Your task to perform on an android device: open app "Instagram" (install if not already installed) Image 0: 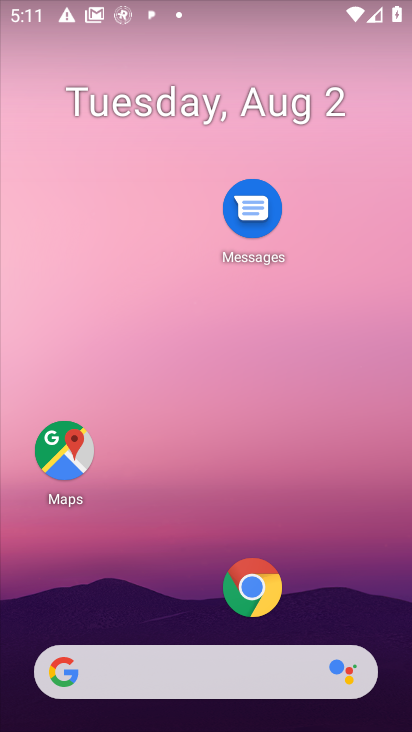
Step 0: drag from (165, 544) to (159, 205)
Your task to perform on an android device: open app "Instagram" (install if not already installed) Image 1: 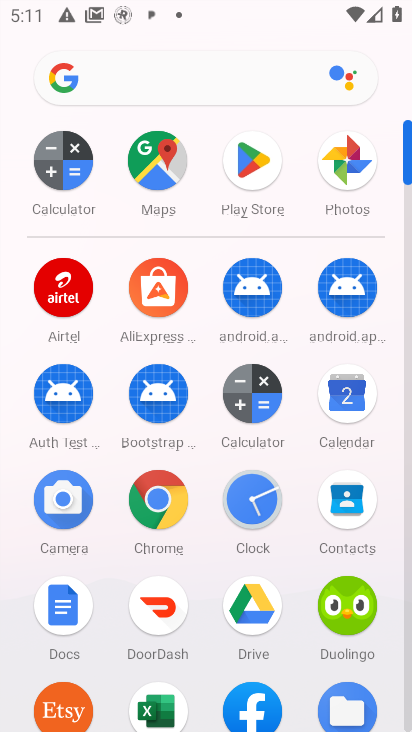
Step 1: click (256, 180)
Your task to perform on an android device: open app "Instagram" (install if not already installed) Image 2: 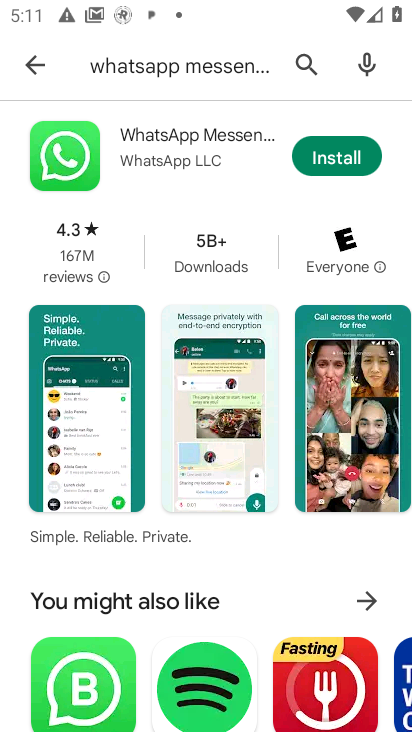
Step 2: click (299, 75)
Your task to perform on an android device: open app "Instagram" (install if not already installed) Image 3: 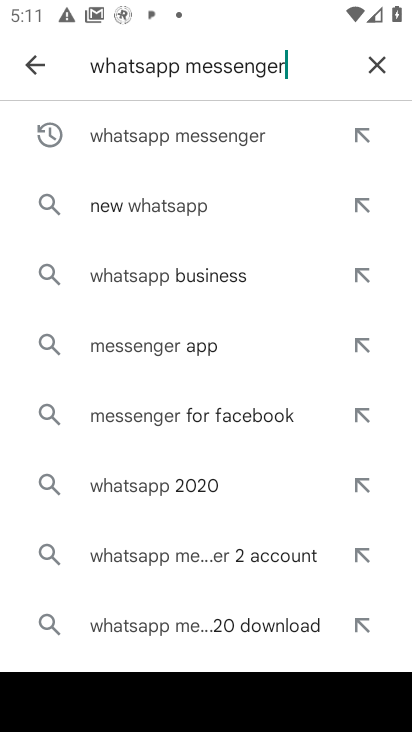
Step 3: click (393, 61)
Your task to perform on an android device: open app "Instagram" (install if not already installed) Image 4: 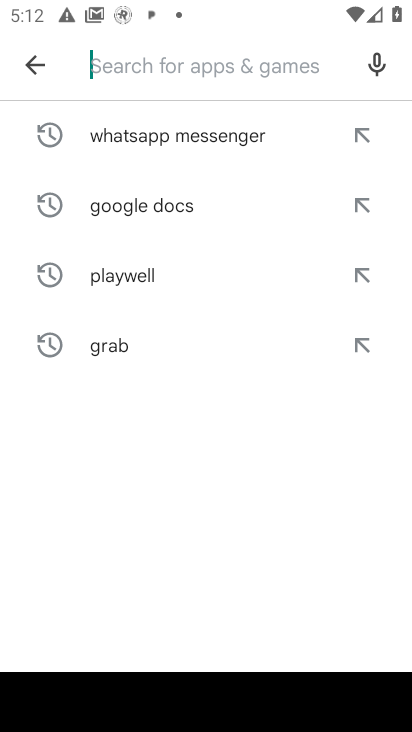
Step 4: type "Instagram"
Your task to perform on an android device: open app "Instagram" (install if not already installed) Image 5: 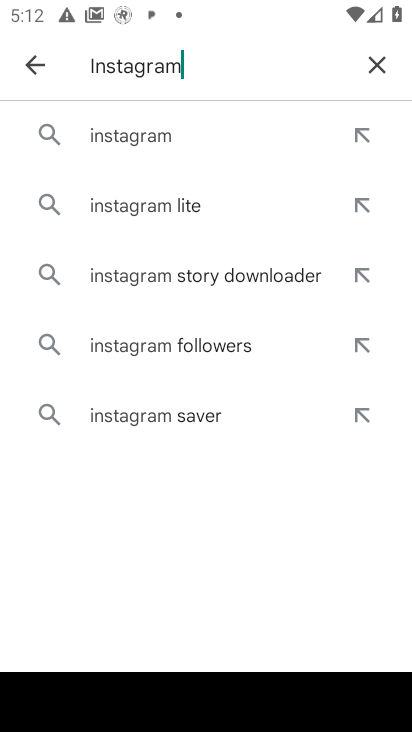
Step 5: click (205, 120)
Your task to perform on an android device: open app "Instagram" (install if not already installed) Image 6: 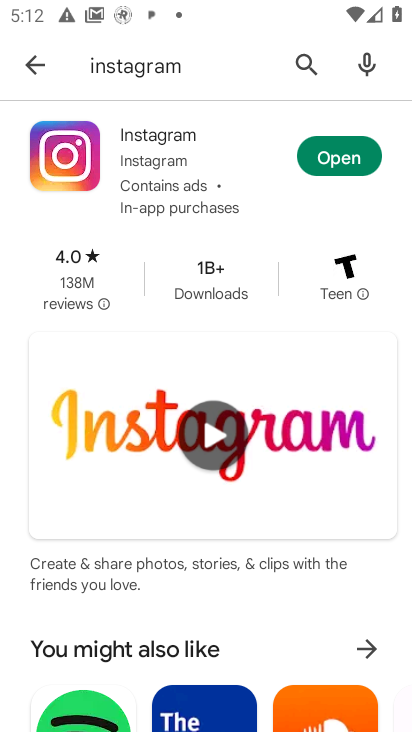
Step 6: click (343, 156)
Your task to perform on an android device: open app "Instagram" (install if not already installed) Image 7: 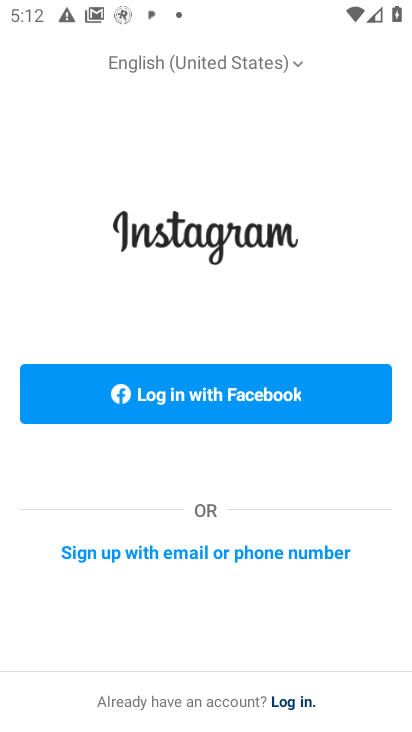
Step 7: task complete